Your task to perform on an android device: Open Yahoo.com Image 0: 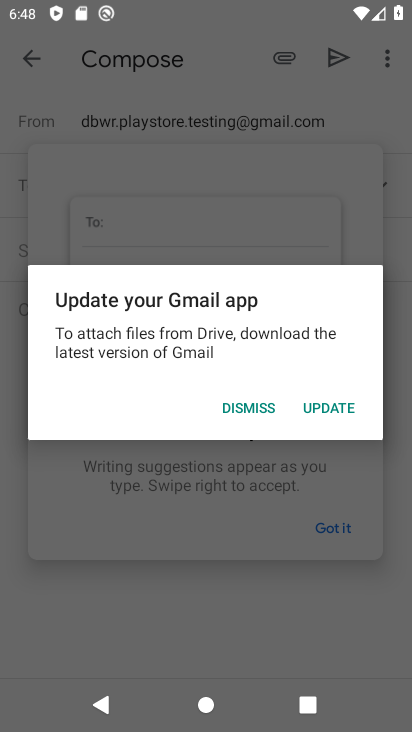
Step 0: press home button
Your task to perform on an android device: Open Yahoo.com Image 1: 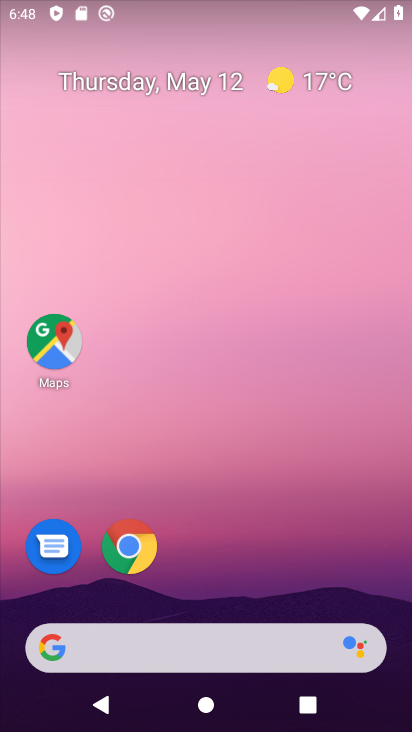
Step 1: click (133, 547)
Your task to perform on an android device: Open Yahoo.com Image 2: 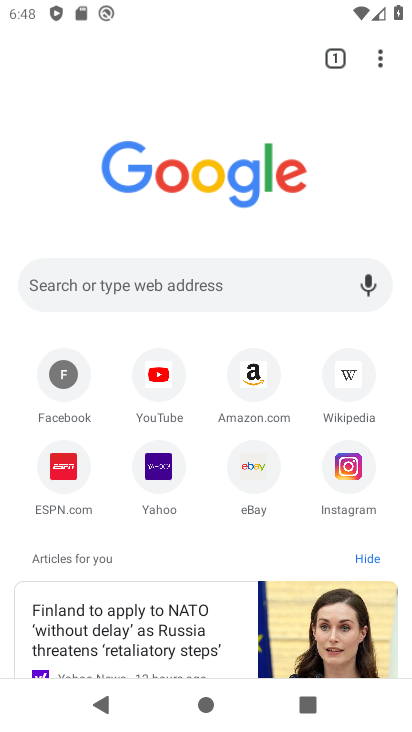
Step 2: click (163, 462)
Your task to perform on an android device: Open Yahoo.com Image 3: 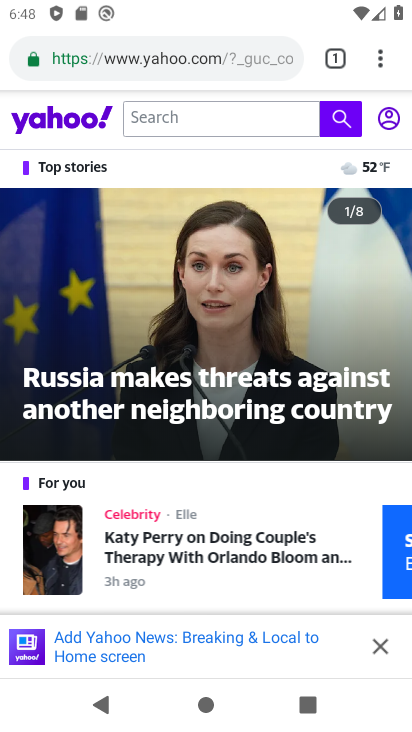
Step 3: task complete